Your task to perform on an android device: toggle airplane mode Image 0: 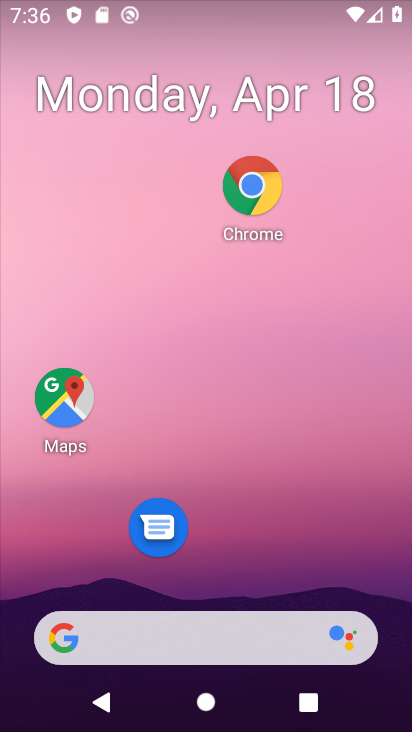
Step 0: drag from (285, 625) to (303, 230)
Your task to perform on an android device: toggle airplane mode Image 1: 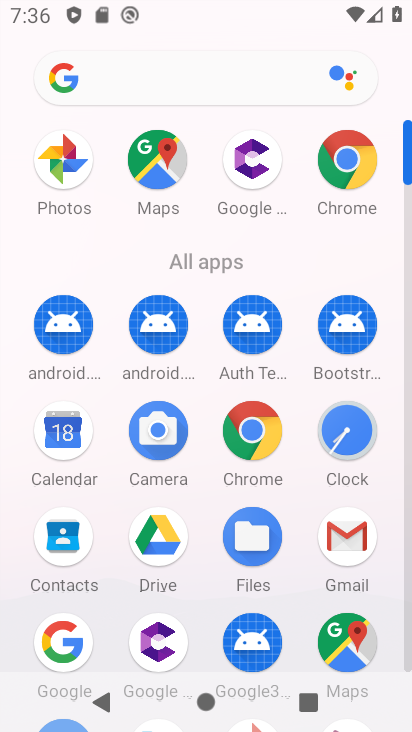
Step 1: drag from (278, 624) to (349, 139)
Your task to perform on an android device: toggle airplane mode Image 2: 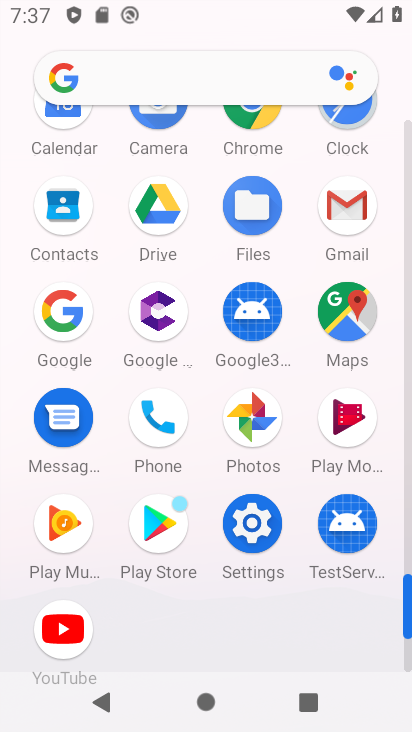
Step 2: click (242, 523)
Your task to perform on an android device: toggle airplane mode Image 3: 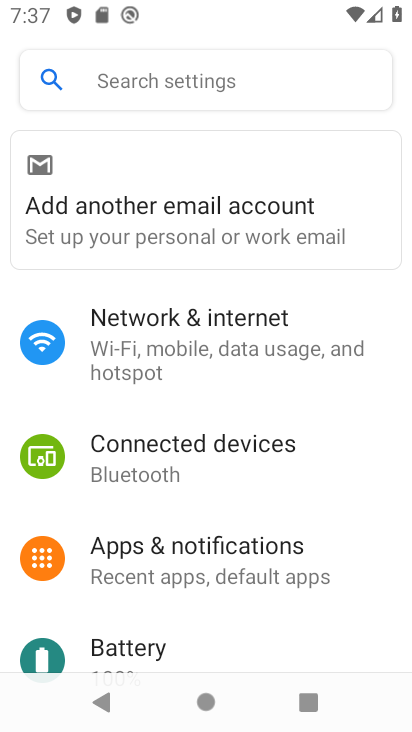
Step 3: click (227, 340)
Your task to perform on an android device: toggle airplane mode Image 4: 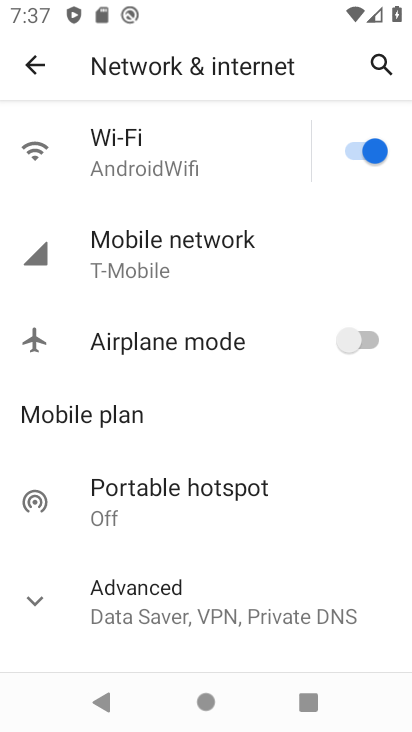
Step 4: click (166, 327)
Your task to perform on an android device: toggle airplane mode Image 5: 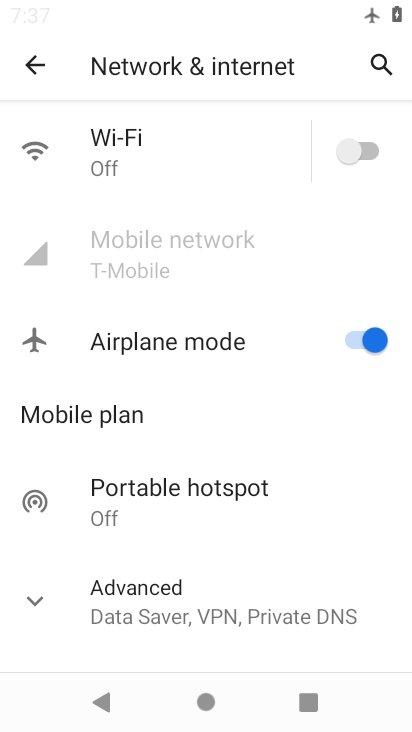
Step 5: task complete